Your task to perform on an android device: turn off location Image 0: 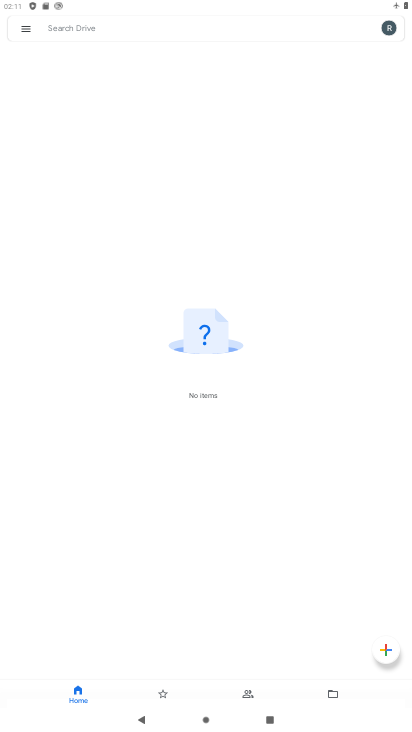
Step 0: press home button
Your task to perform on an android device: turn off location Image 1: 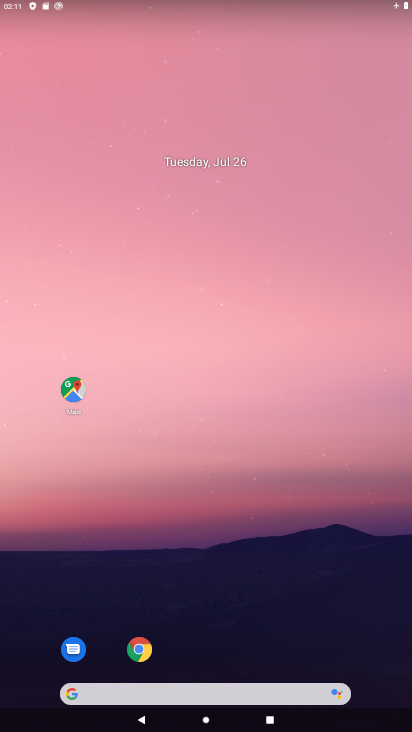
Step 1: drag from (191, 691) to (193, 178)
Your task to perform on an android device: turn off location Image 2: 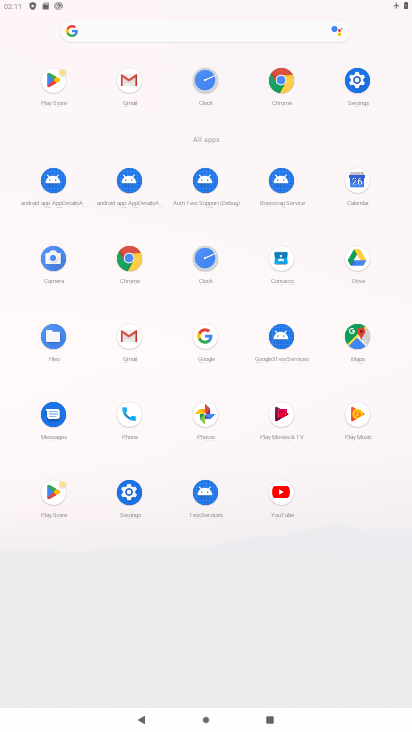
Step 2: click (128, 494)
Your task to perform on an android device: turn off location Image 3: 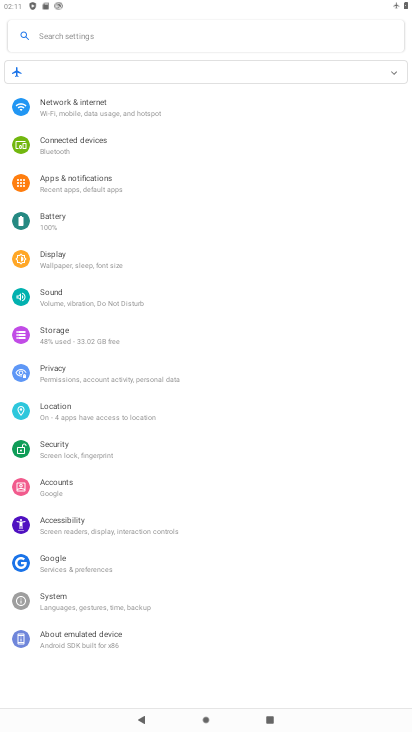
Step 3: click (60, 411)
Your task to perform on an android device: turn off location Image 4: 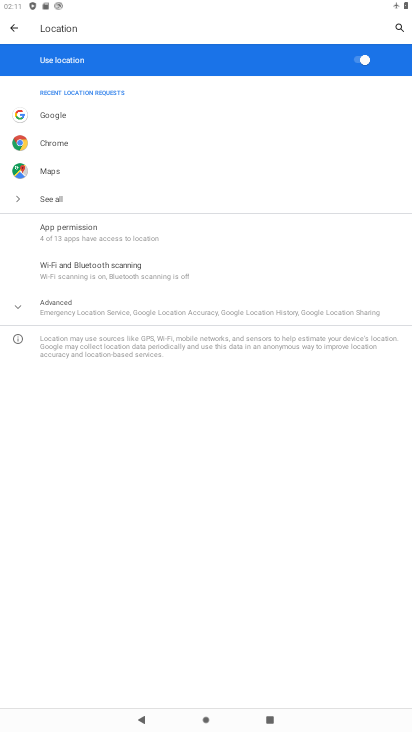
Step 4: click (356, 60)
Your task to perform on an android device: turn off location Image 5: 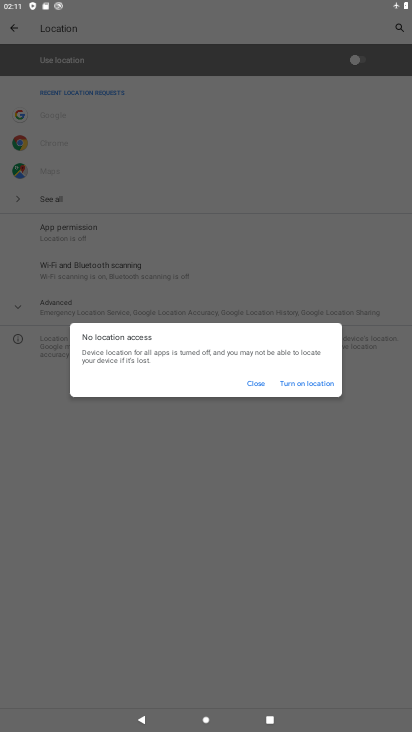
Step 5: click (258, 382)
Your task to perform on an android device: turn off location Image 6: 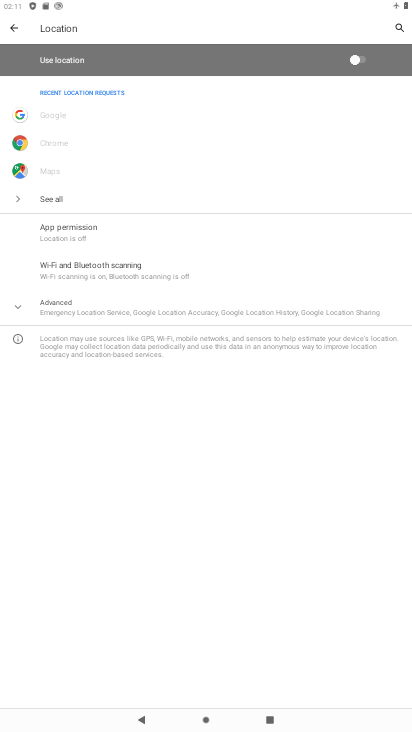
Step 6: task complete